Your task to perform on an android device: Add "apple airpods pro" to the cart on walmart.com Image 0: 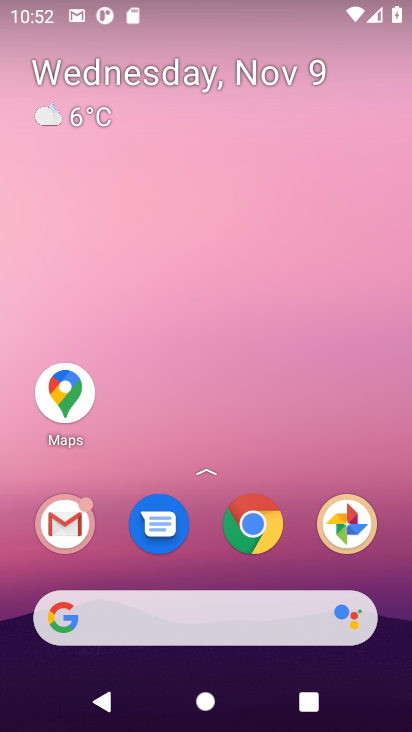
Step 0: click (246, 538)
Your task to perform on an android device: Add "apple airpods pro" to the cart on walmart.com Image 1: 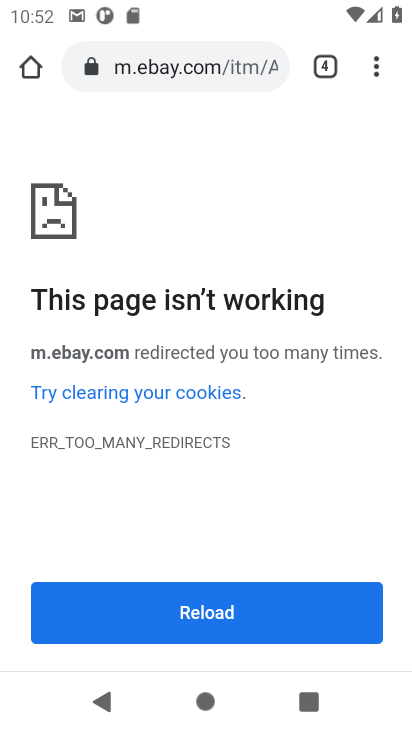
Step 1: click (332, 64)
Your task to perform on an android device: Add "apple airpods pro" to the cart on walmart.com Image 2: 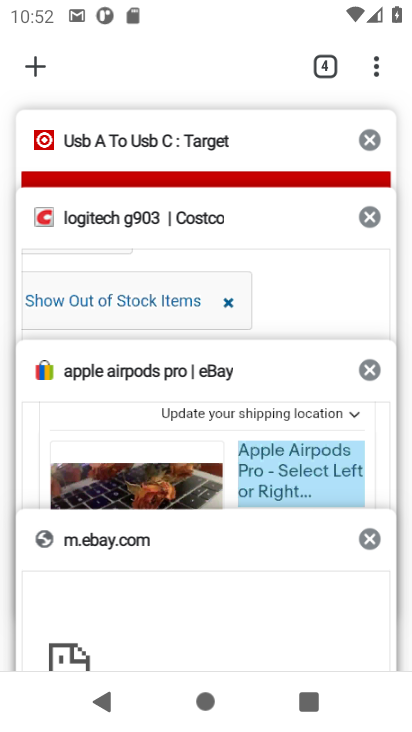
Step 2: click (35, 71)
Your task to perform on an android device: Add "apple airpods pro" to the cart on walmart.com Image 3: 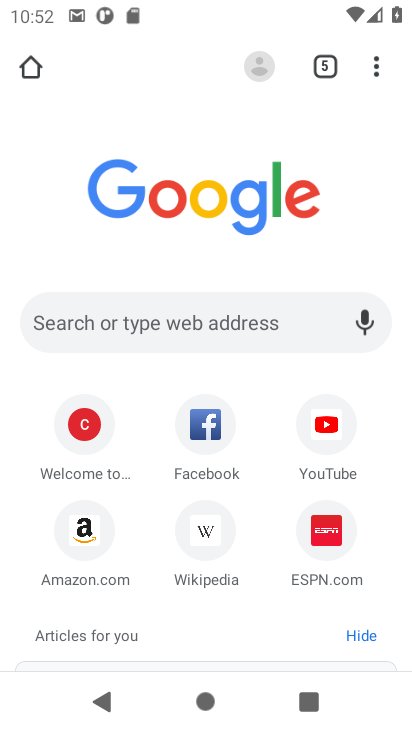
Step 3: click (240, 324)
Your task to perform on an android device: Add "apple airpods pro" to the cart on walmart.com Image 4: 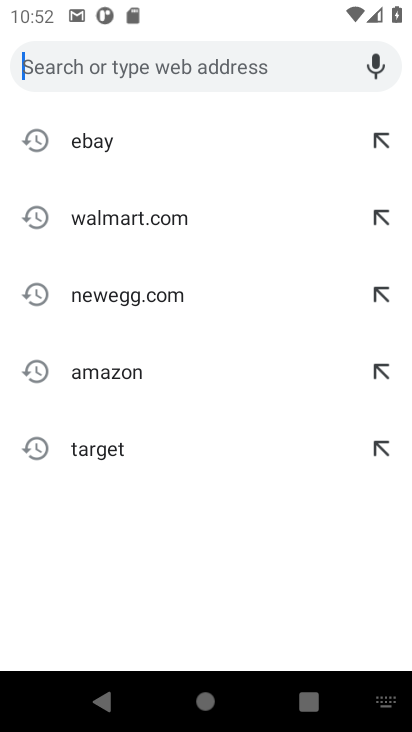
Step 4: type "walmart"
Your task to perform on an android device: Add "apple airpods pro" to the cart on walmart.com Image 5: 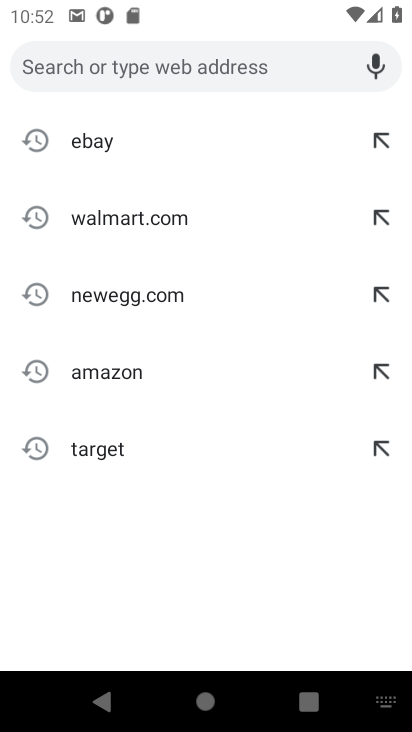
Step 5: click (158, 220)
Your task to perform on an android device: Add "apple airpods pro" to the cart on walmart.com Image 6: 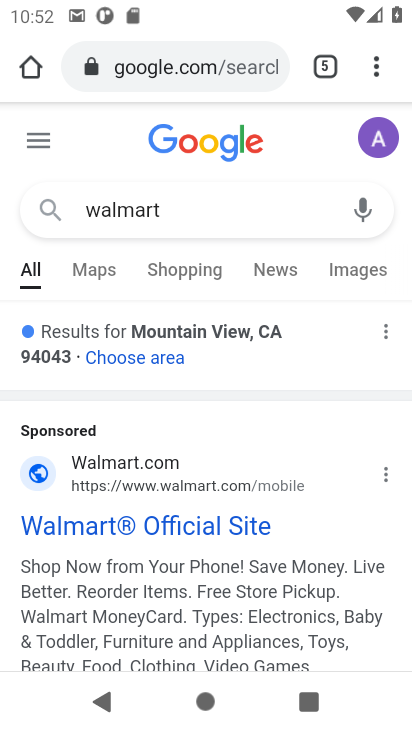
Step 6: drag from (240, 609) to (264, 190)
Your task to perform on an android device: Add "apple airpods pro" to the cart on walmart.com Image 7: 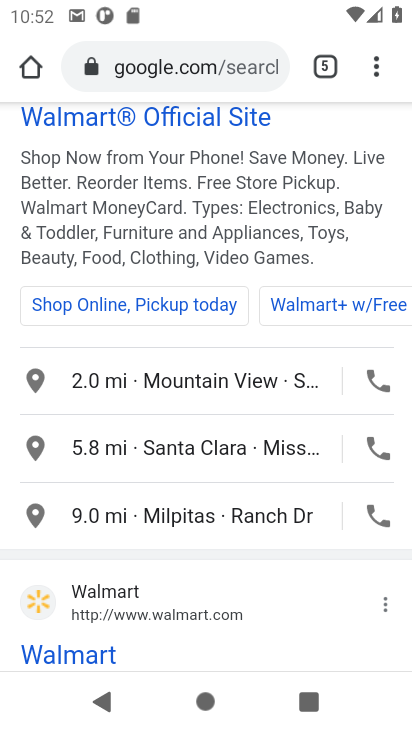
Step 7: click (92, 653)
Your task to perform on an android device: Add "apple airpods pro" to the cart on walmart.com Image 8: 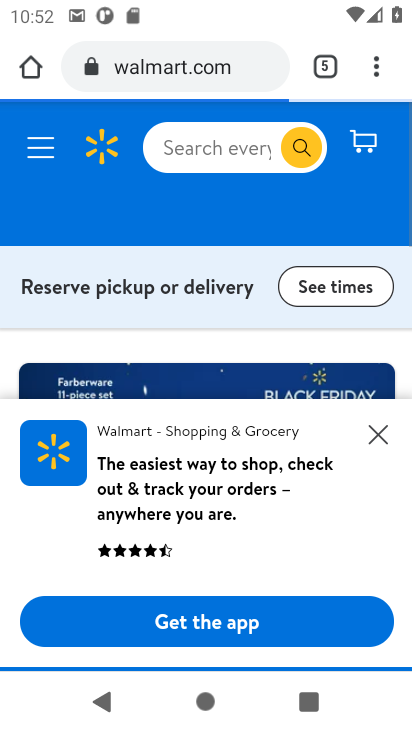
Step 8: click (197, 148)
Your task to perform on an android device: Add "apple airpods pro" to the cart on walmart.com Image 9: 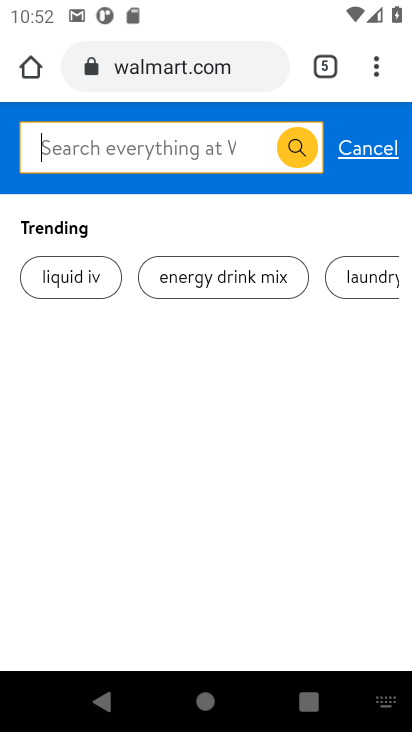
Step 9: type "apple airpods pro"
Your task to perform on an android device: Add "apple airpods pro" to the cart on walmart.com Image 10: 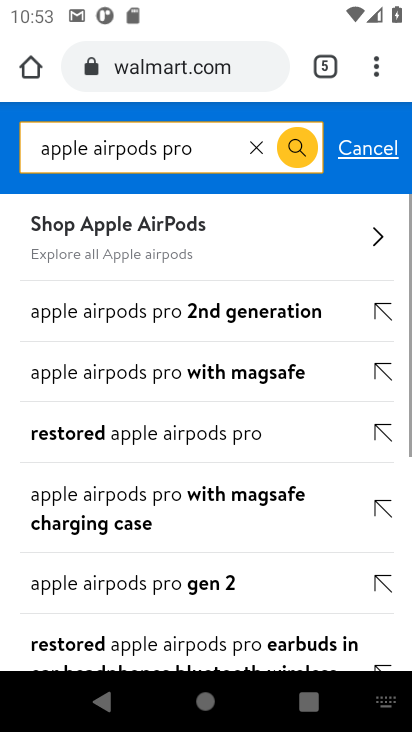
Step 10: click (156, 223)
Your task to perform on an android device: Add "apple airpods pro" to the cart on walmart.com Image 11: 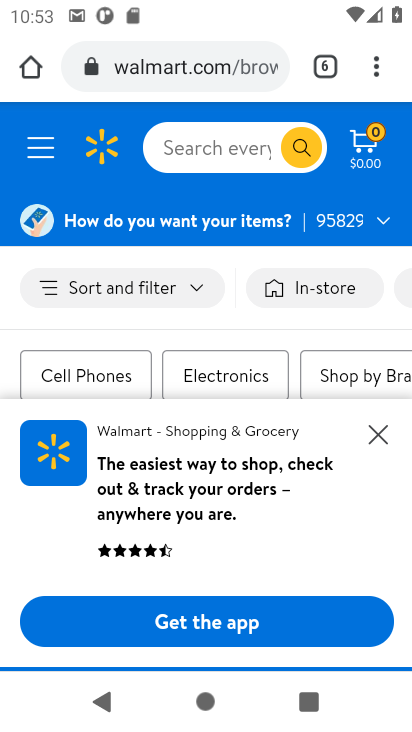
Step 11: click (381, 436)
Your task to perform on an android device: Add "apple airpods pro" to the cart on walmart.com Image 12: 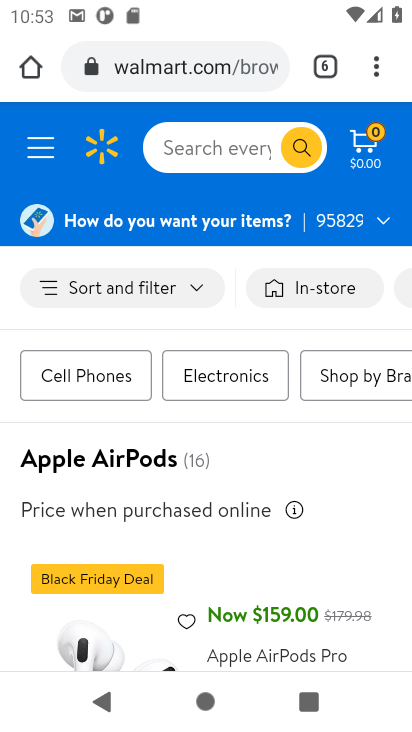
Step 12: drag from (286, 547) to (365, 237)
Your task to perform on an android device: Add "apple airpods pro" to the cart on walmart.com Image 13: 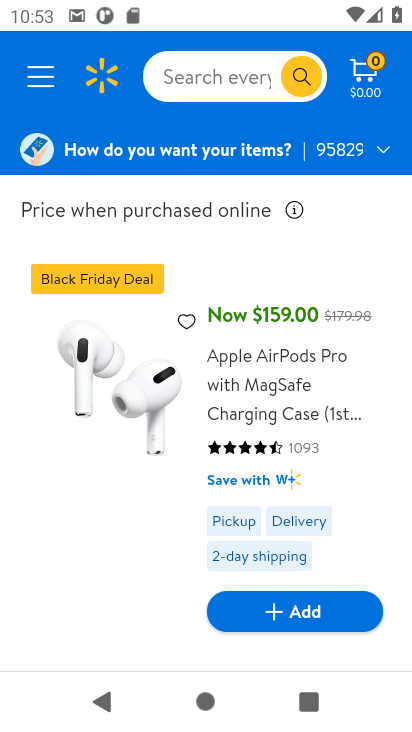
Step 13: click (306, 606)
Your task to perform on an android device: Add "apple airpods pro" to the cart on walmart.com Image 14: 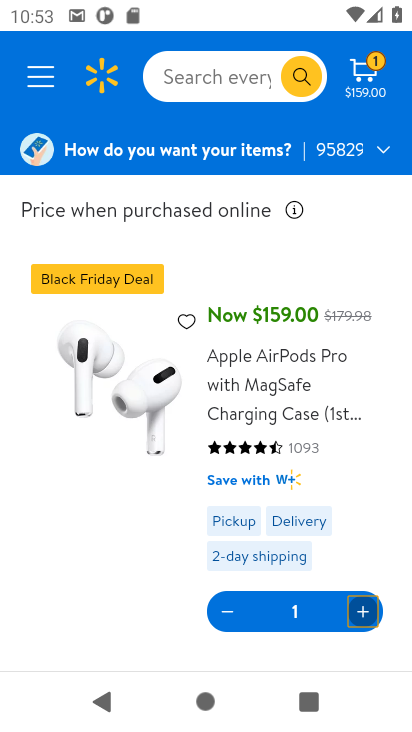
Step 14: task complete